Your task to perform on an android device: Go to calendar. Show me events next week Image 0: 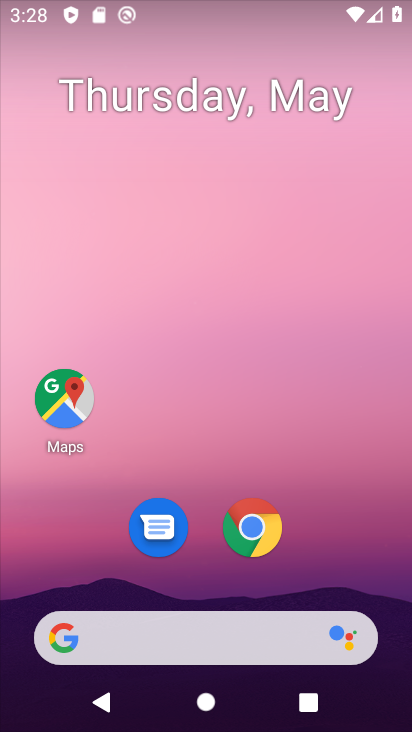
Step 0: drag from (394, 610) to (317, 175)
Your task to perform on an android device: Go to calendar. Show me events next week Image 1: 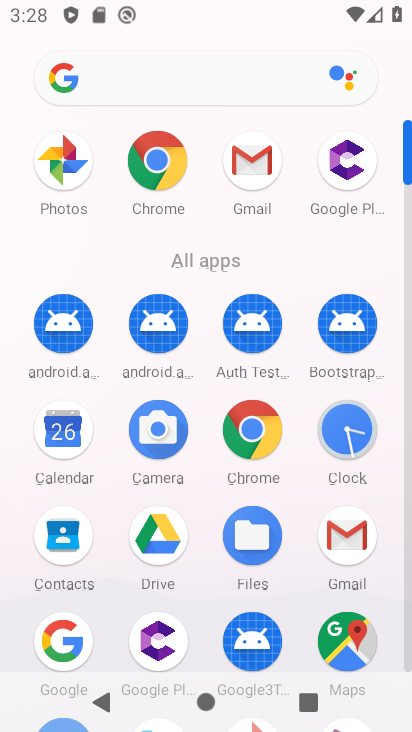
Step 1: click (410, 656)
Your task to perform on an android device: Go to calendar. Show me events next week Image 2: 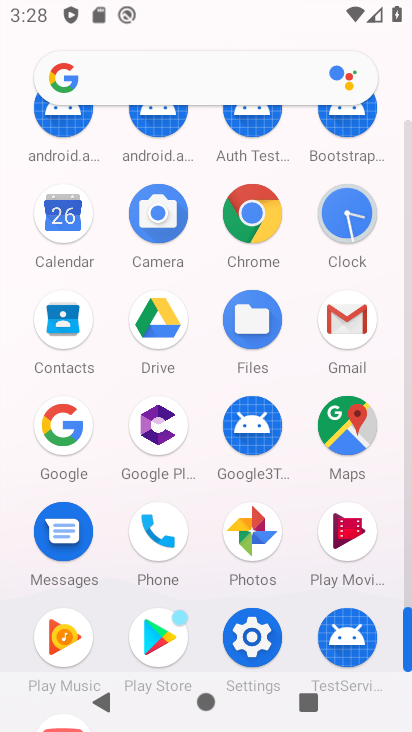
Step 2: click (60, 209)
Your task to perform on an android device: Go to calendar. Show me events next week Image 3: 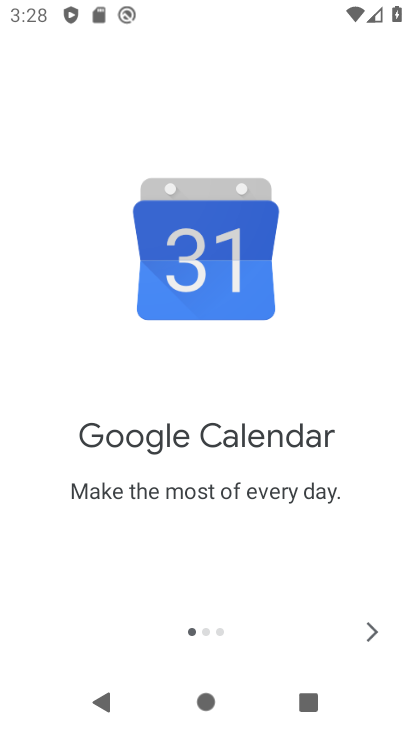
Step 3: click (370, 623)
Your task to perform on an android device: Go to calendar. Show me events next week Image 4: 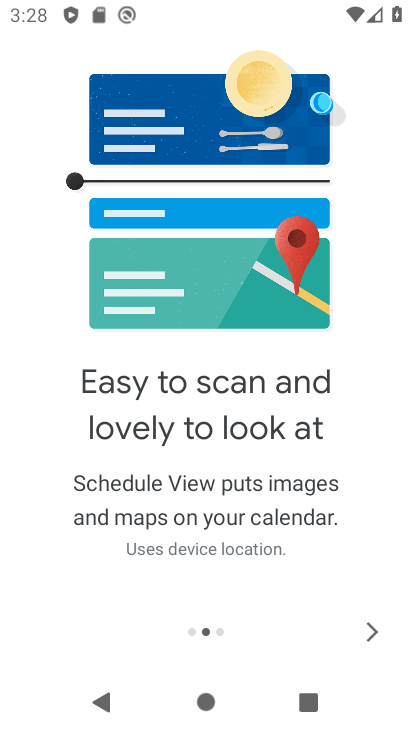
Step 4: click (370, 623)
Your task to perform on an android device: Go to calendar. Show me events next week Image 5: 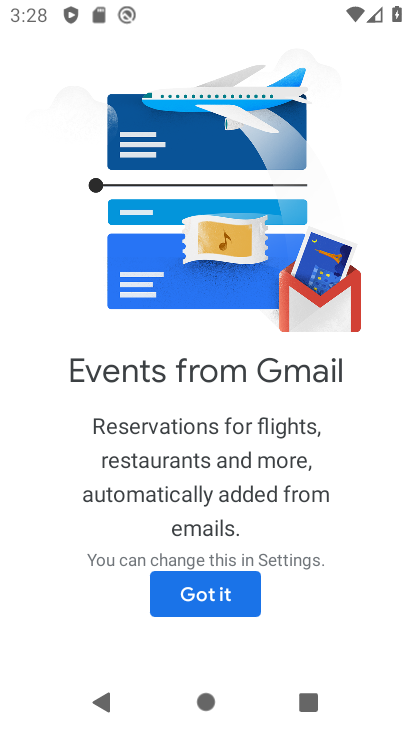
Step 5: click (197, 586)
Your task to perform on an android device: Go to calendar. Show me events next week Image 6: 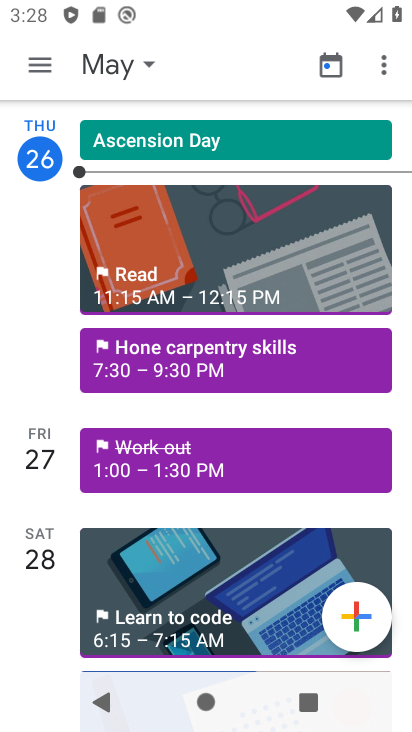
Step 6: click (49, 62)
Your task to perform on an android device: Go to calendar. Show me events next week Image 7: 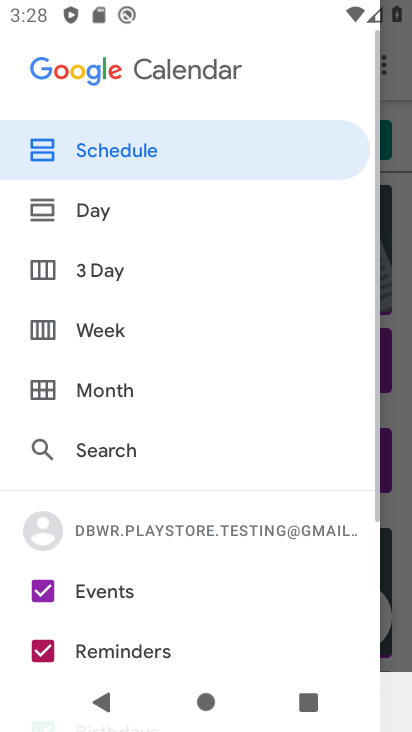
Step 7: click (108, 327)
Your task to perform on an android device: Go to calendar. Show me events next week Image 8: 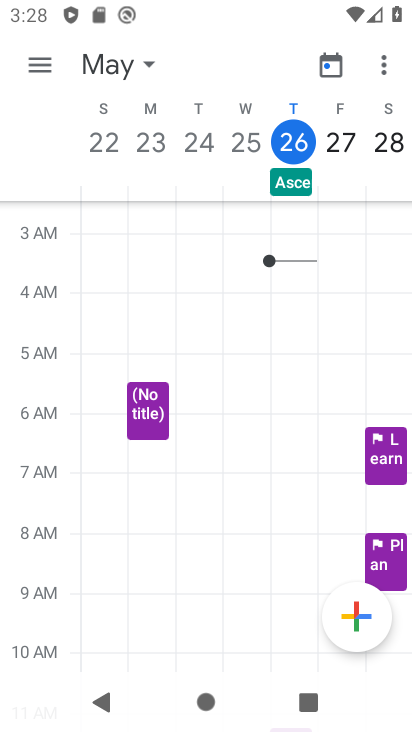
Step 8: click (141, 60)
Your task to perform on an android device: Go to calendar. Show me events next week Image 9: 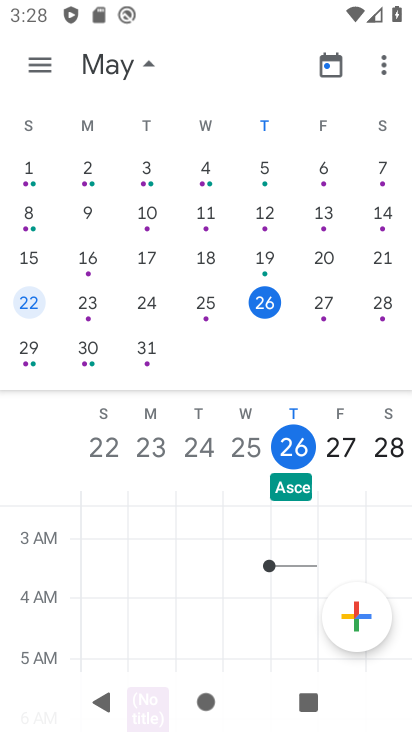
Step 9: click (26, 354)
Your task to perform on an android device: Go to calendar. Show me events next week Image 10: 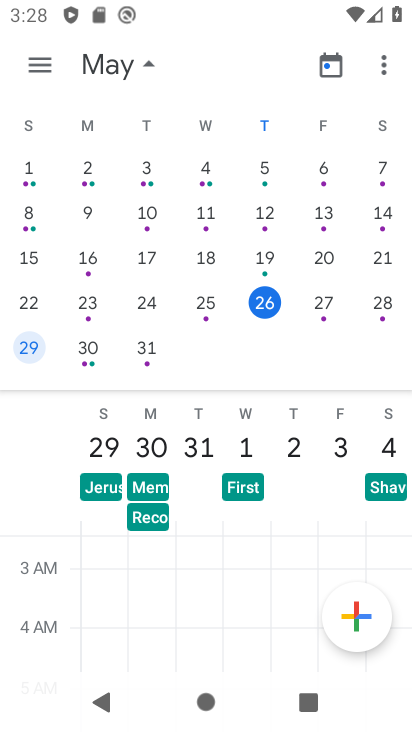
Step 10: task complete